Your task to perform on an android device: delete browsing data in the chrome app Image 0: 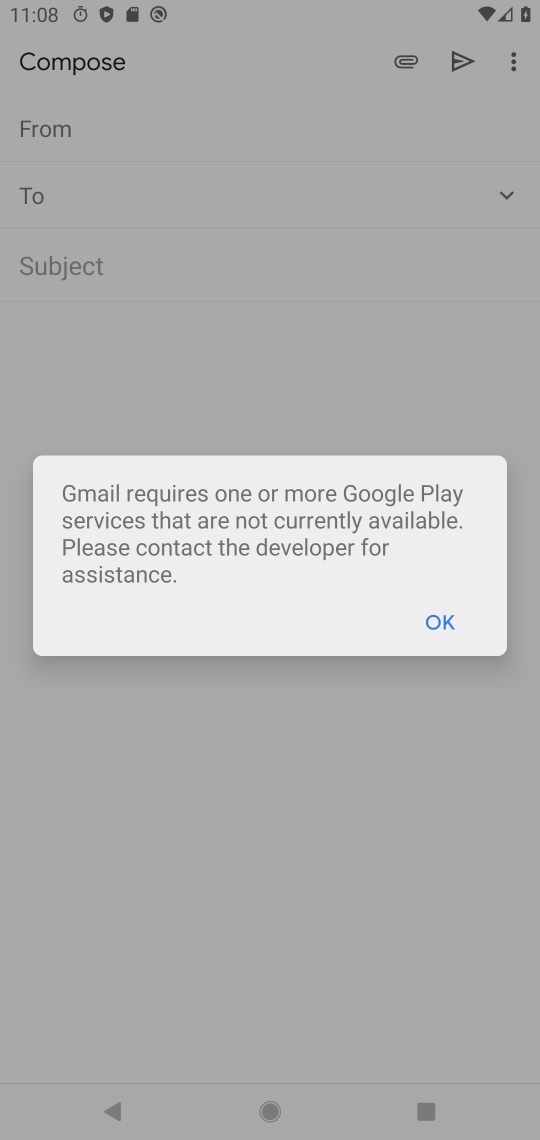
Step 0: press home button
Your task to perform on an android device: delete browsing data in the chrome app Image 1: 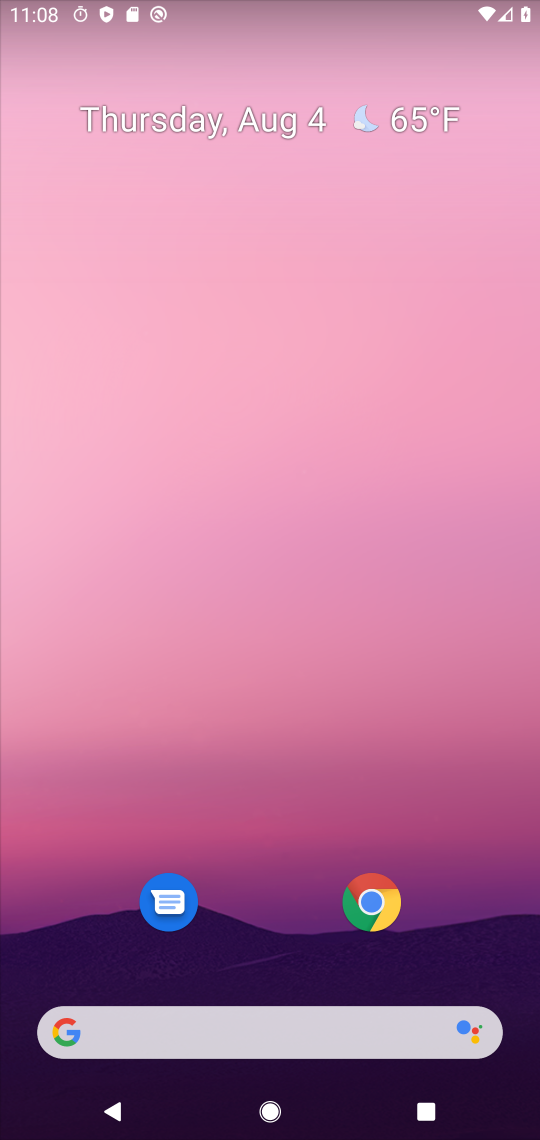
Step 1: drag from (314, 776) to (375, 287)
Your task to perform on an android device: delete browsing data in the chrome app Image 2: 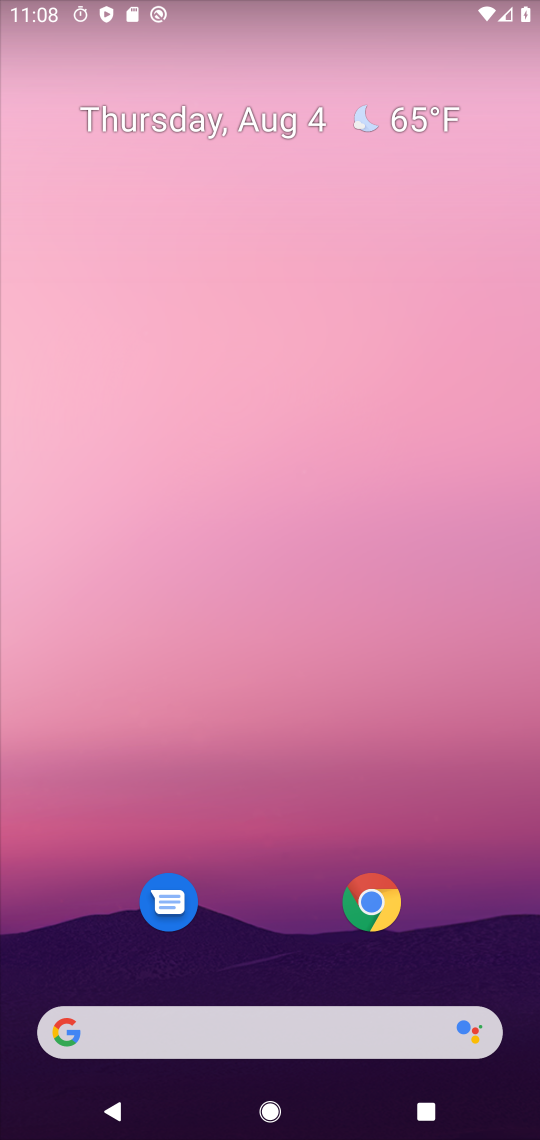
Step 2: drag from (254, 927) to (171, 297)
Your task to perform on an android device: delete browsing data in the chrome app Image 3: 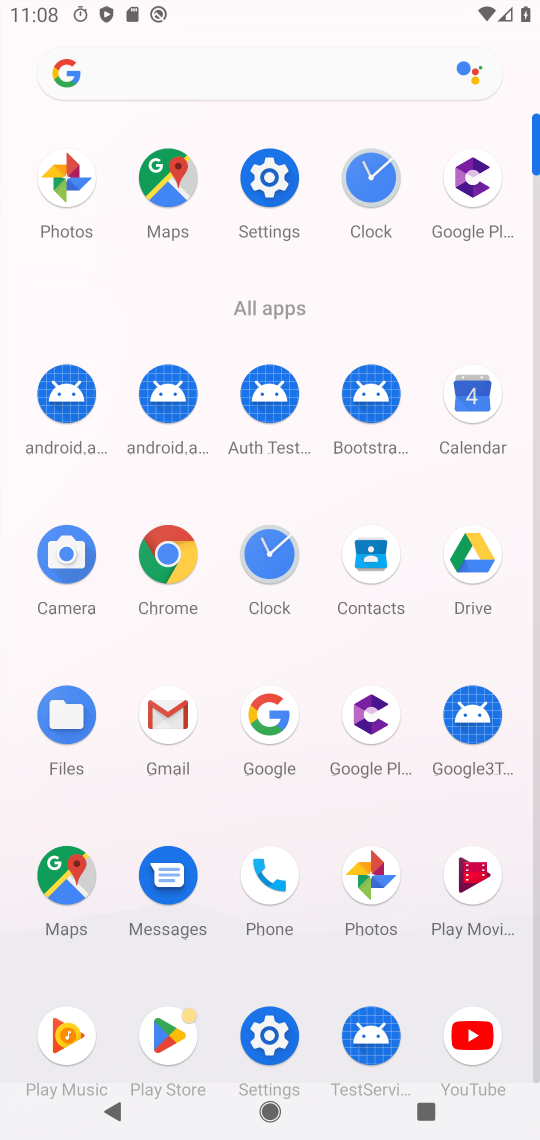
Step 3: click (169, 523)
Your task to perform on an android device: delete browsing data in the chrome app Image 4: 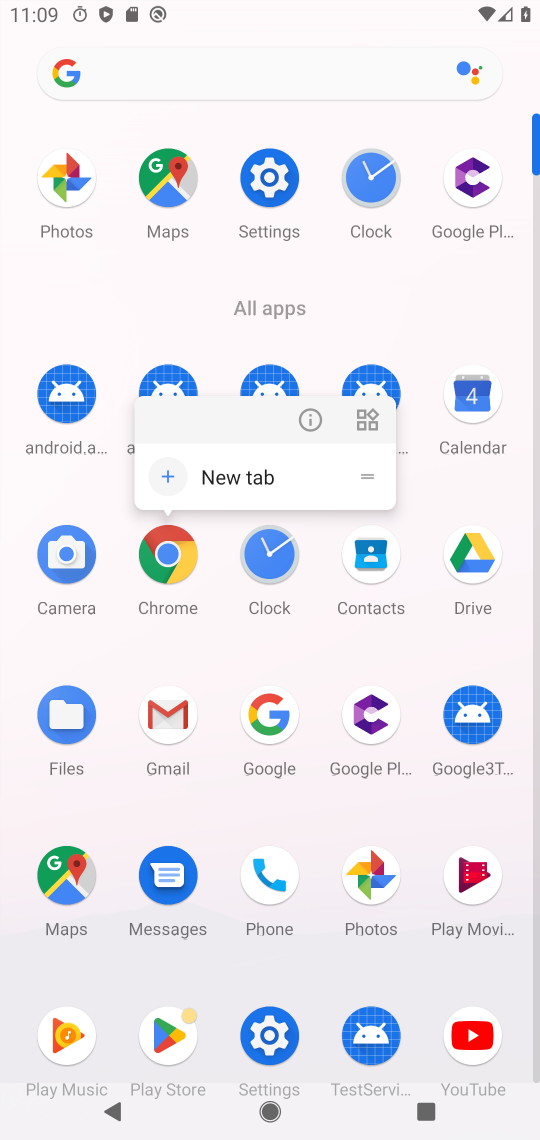
Step 4: click (170, 560)
Your task to perform on an android device: delete browsing data in the chrome app Image 5: 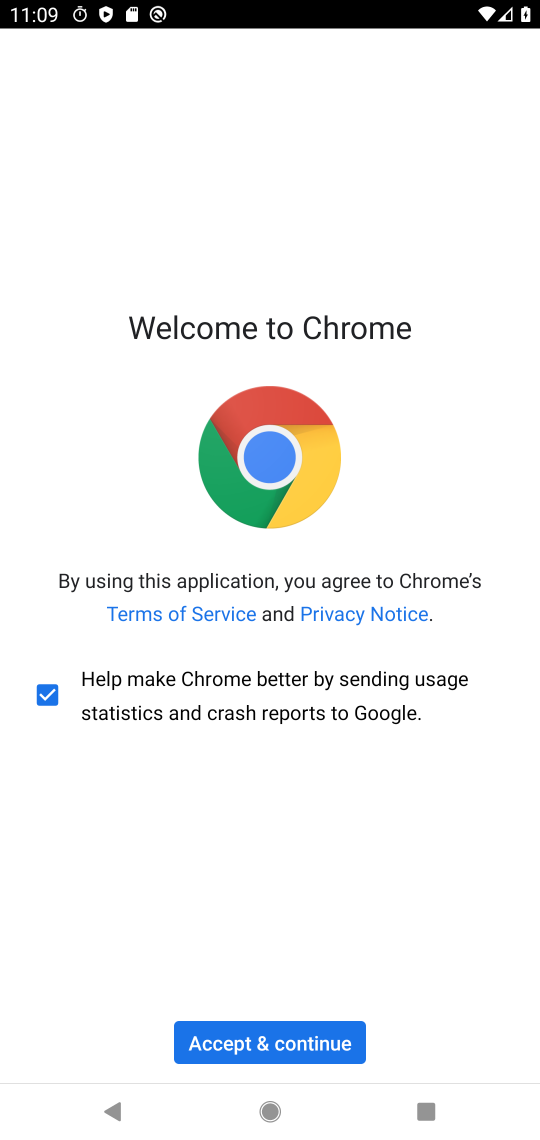
Step 5: click (282, 1056)
Your task to perform on an android device: delete browsing data in the chrome app Image 6: 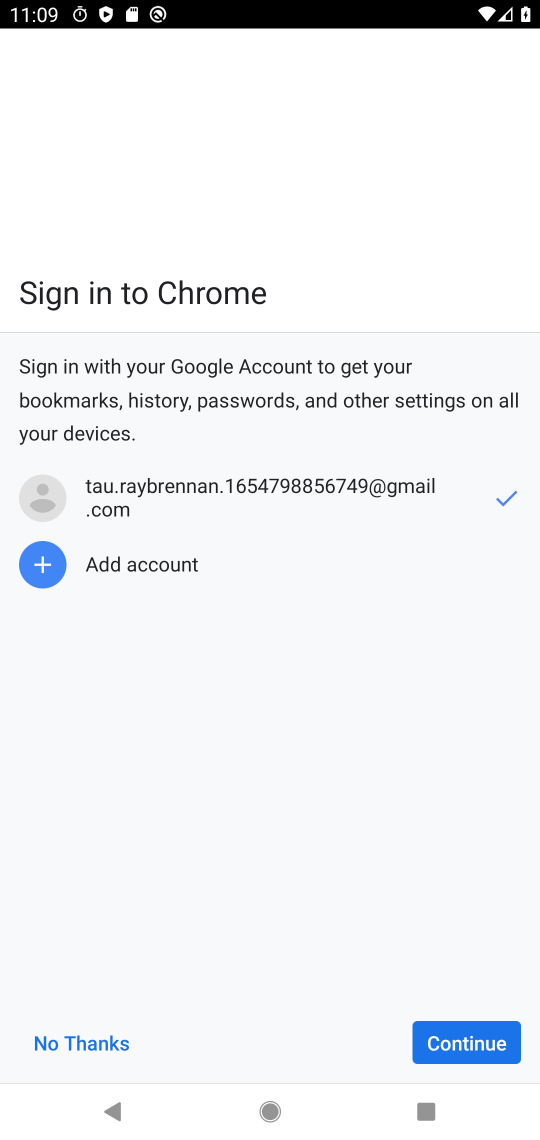
Step 6: click (476, 1030)
Your task to perform on an android device: delete browsing data in the chrome app Image 7: 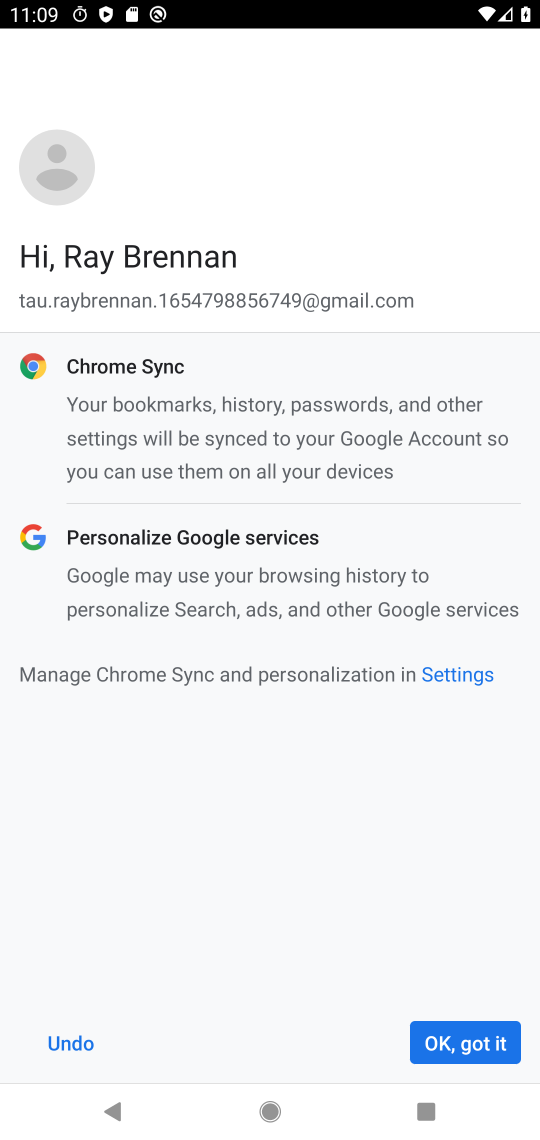
Step 7: click (446, 1042)
Your task to perform on an android device: delete browsing data in the chrome app Image 8: 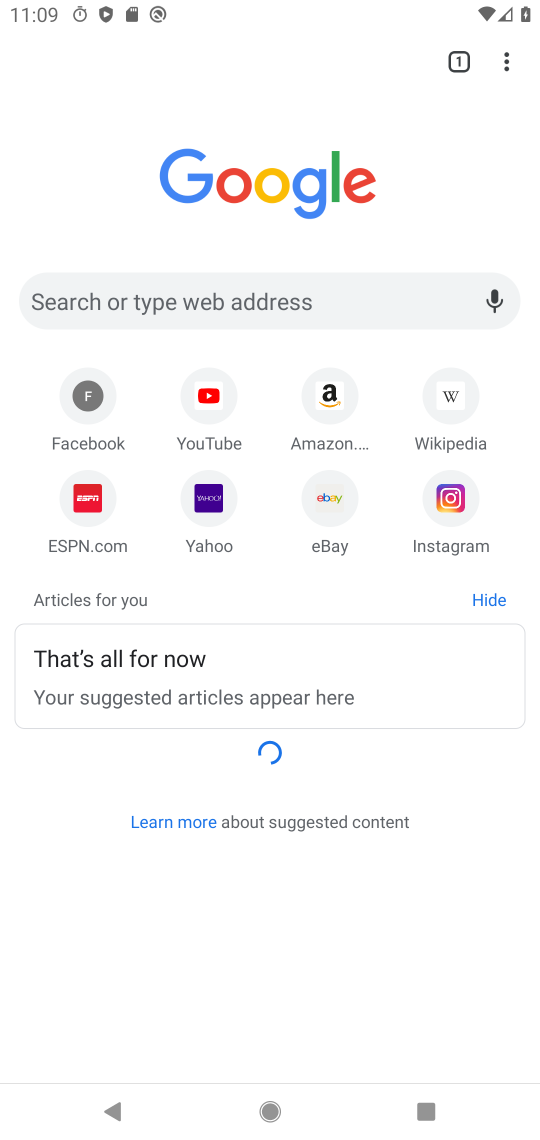
Step 8: click (501, 65)
Your task to perform on an android device: delete browsing data in the chrome app Image 9: 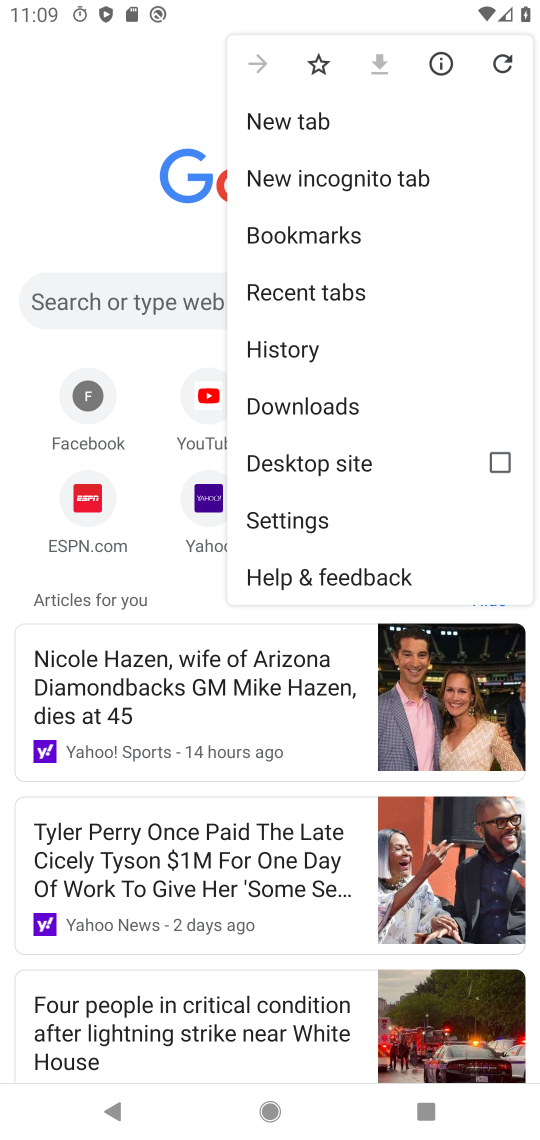
Step 9: click (297, 340)
Your task to perform on an android device: delete browsing data in the chrome app Image 10: 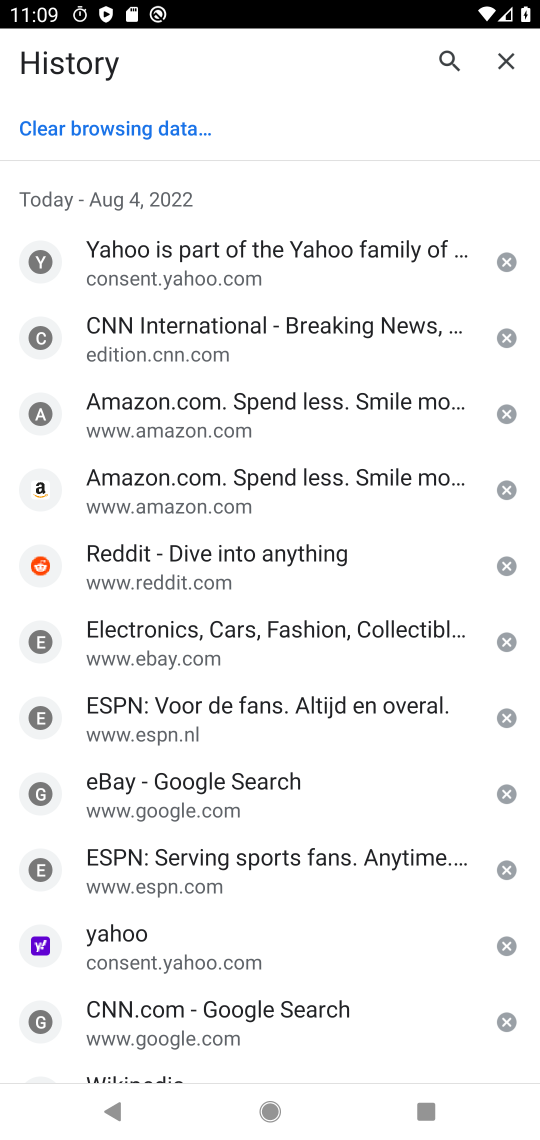
Step 10: click (118, 126)
Your task to perform on an android device: delete browsing data in the chrome app Image 11: 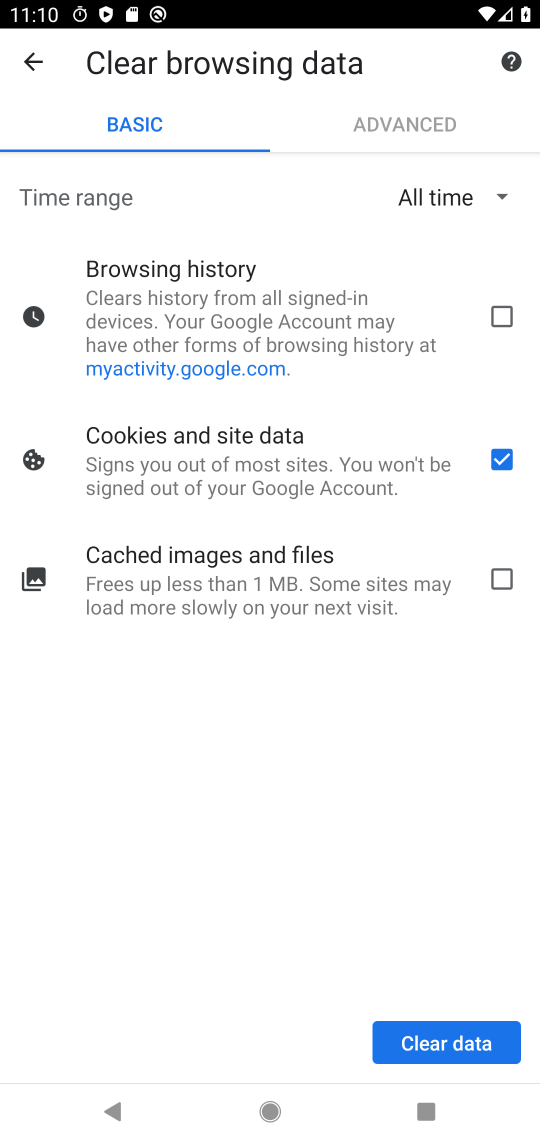
Step 11: click (428, 1039)
Your task to perform on an android device: delete browsing data in the chrome app Image 12: 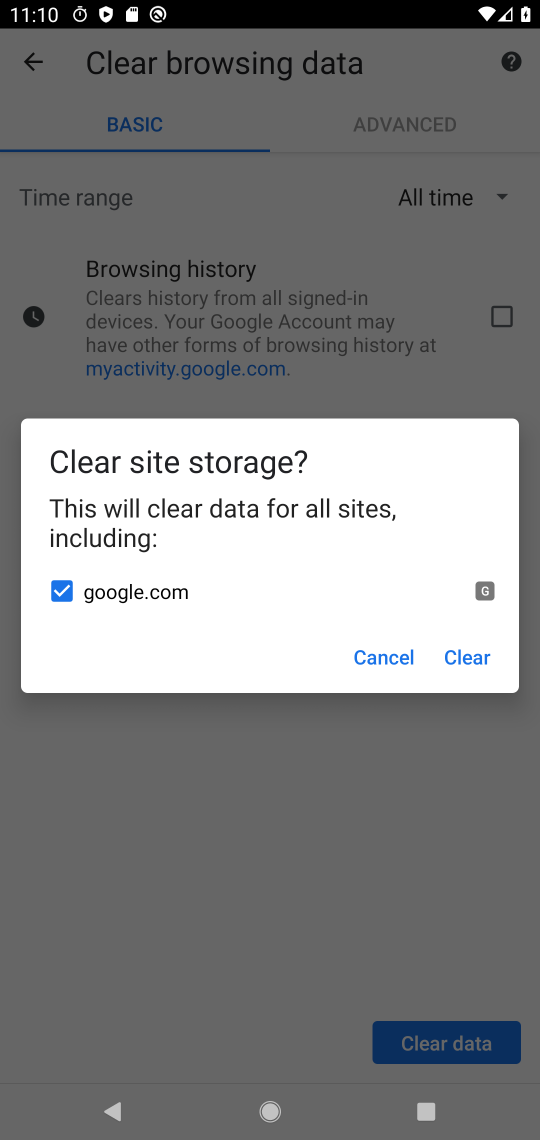
Step 12: click (494, 667)
Your task to perform on an android device: delete browsing data in the chrome app Image 13: 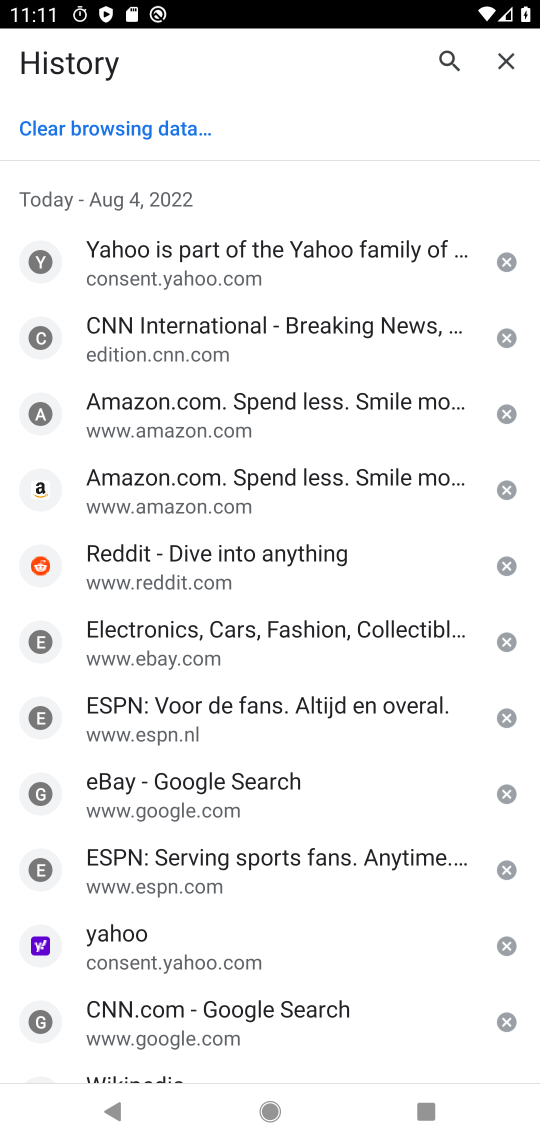
Step 13: click (92, 135)
Your task to perform on an android device: delete browsing data in the chrome app Image 14: 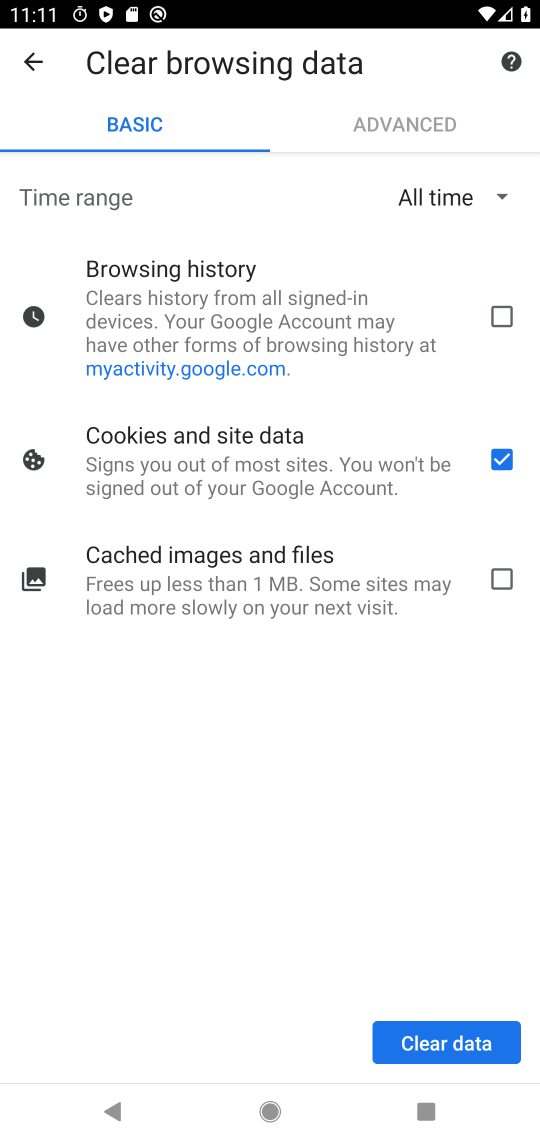
Step 14: click (452, 1038)
Your task to perform on an android device: delete browsing data in the chrome app Image 15: 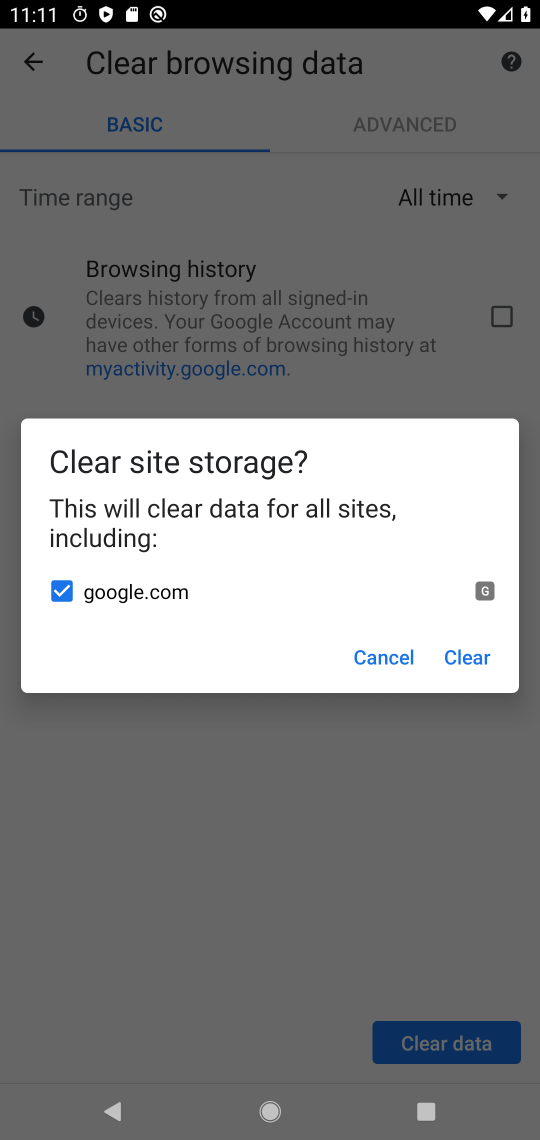
Step 15: click (444, 661)
Your task to perform on an android device: delete browsing data in the chrome app Image 16: 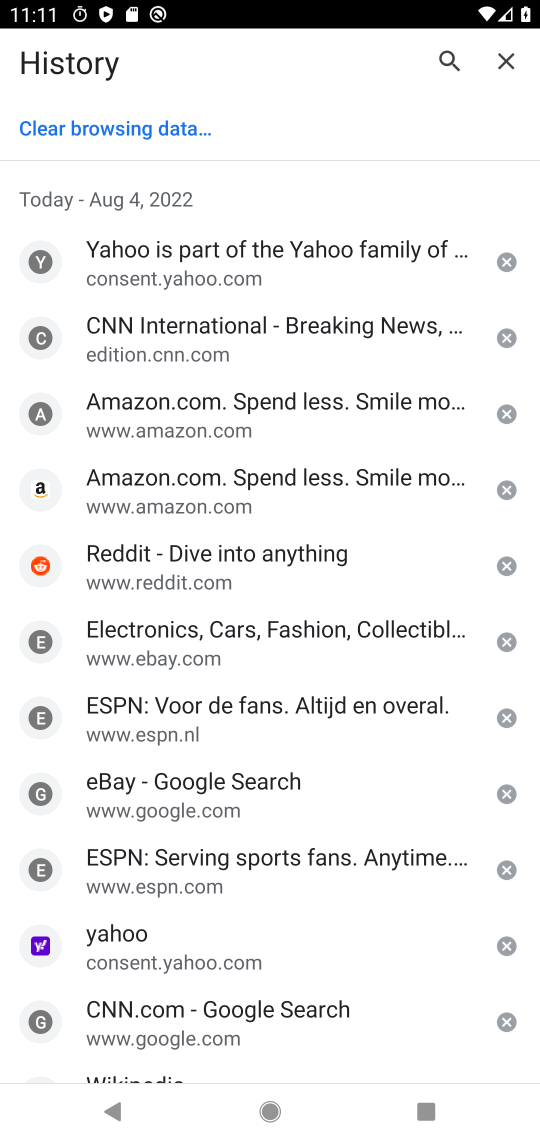
Step 16: task complete